Your task to perform on an android device: turn off improve location accuracy Image 0: 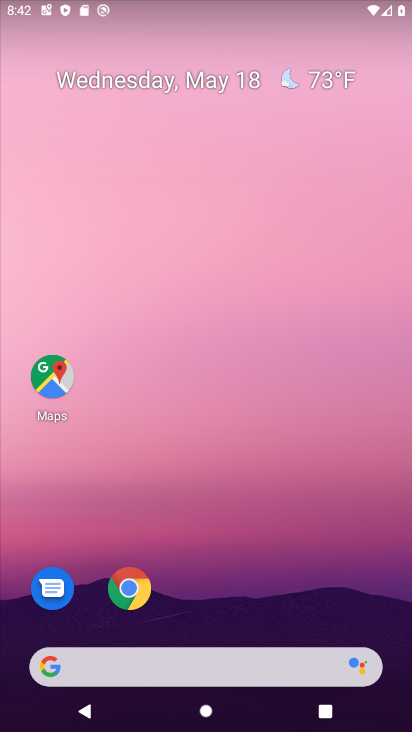
Step 0: drag from (326, 612) to (321, 210)
Your task to perform on an android device: turn off improve location accuracy Image 1: 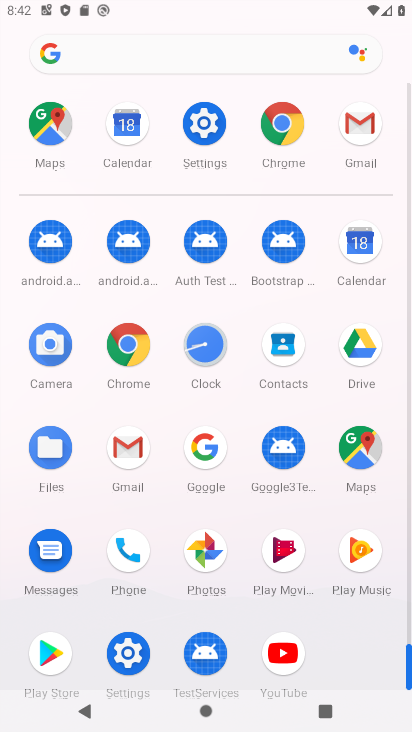
Step 1: click (195, 116)
Your task to perform on an android device: turn off improve location accuracy Image 2: 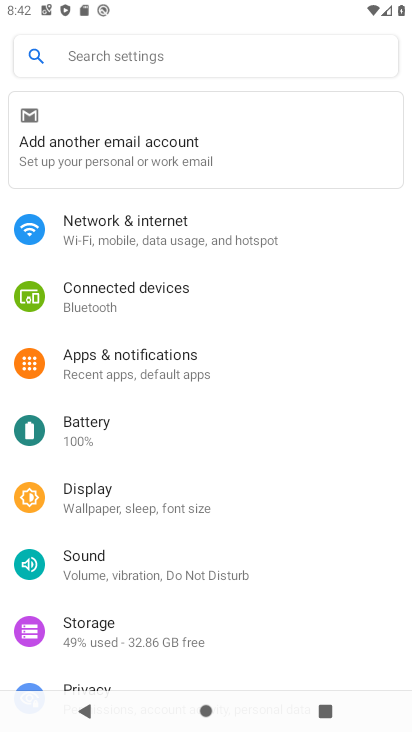
Step 2: drag from (306, 631) to (316, 291)
Your task to perform on an android device: turn off improve location accuracy Image 3: 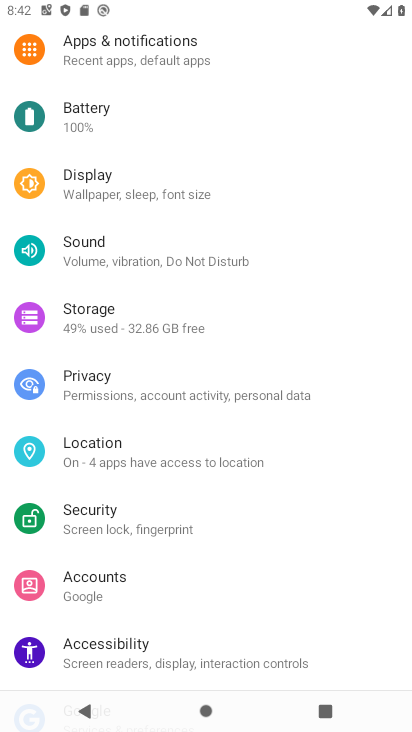
Step 3: click (221, 469)
Your task to perform on an android device: turn off improve location accuracy Image 4: 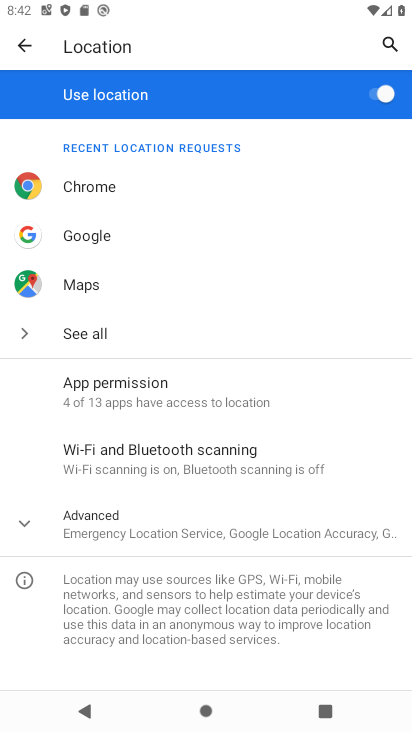
Step 4: click (226, 518)
Your task to perform on an android device: turn off improve location accuracy Image 5: 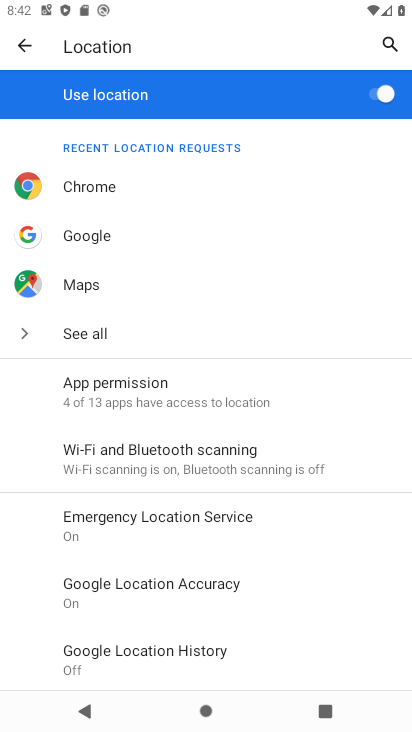
Step 5: click (228, 585)
Your task to perform on an android device: turn off improve location accuracy Image 6: 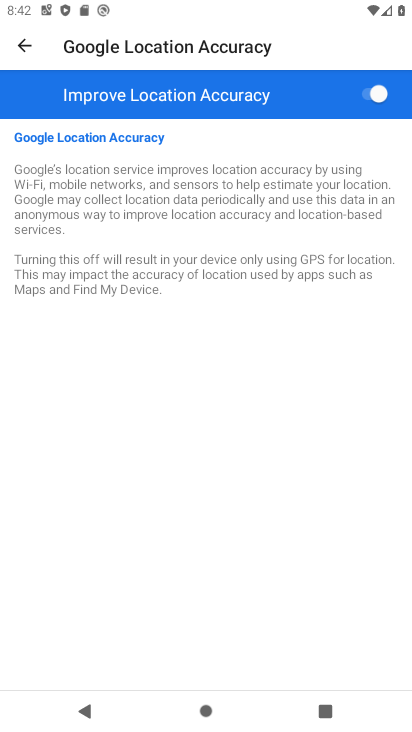
Step 6: click (375, 101)
Your task to perform on an android device: turn off improve location accuracy Image 7: 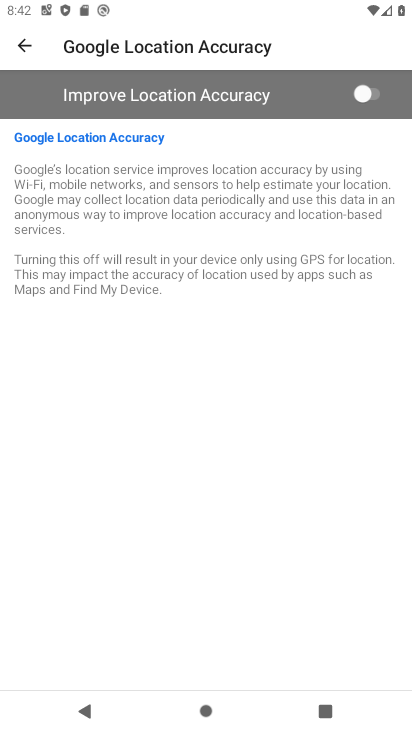
Step 7: task complete